Your task to perform on an android device: Show me productivity apps on the Play Store Image 0: 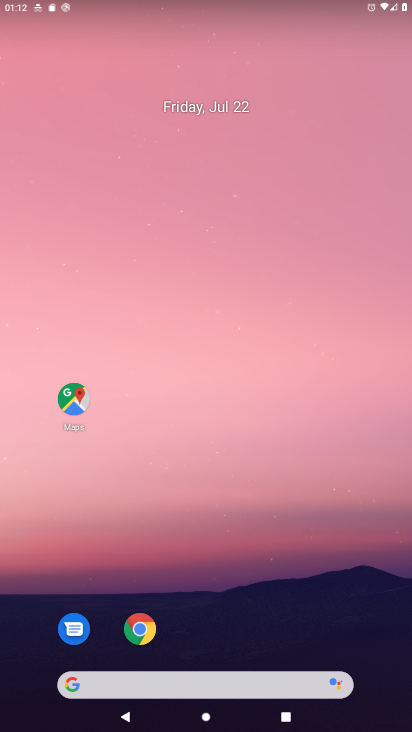
Step 0: drag from (203, 616) to (203, 58)
Your task to perform on an android device: Show me productivity apps on the Play Store Image 1: 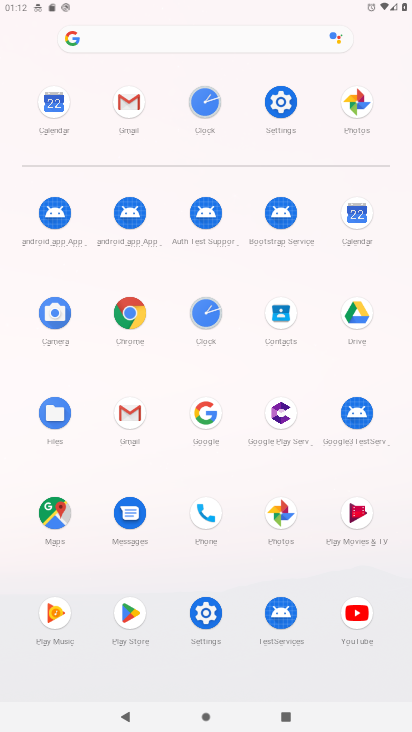
Step 1: click (124, 611)
Your task to perform on an android device: Show me productivity apps on the Play Store Image 2: 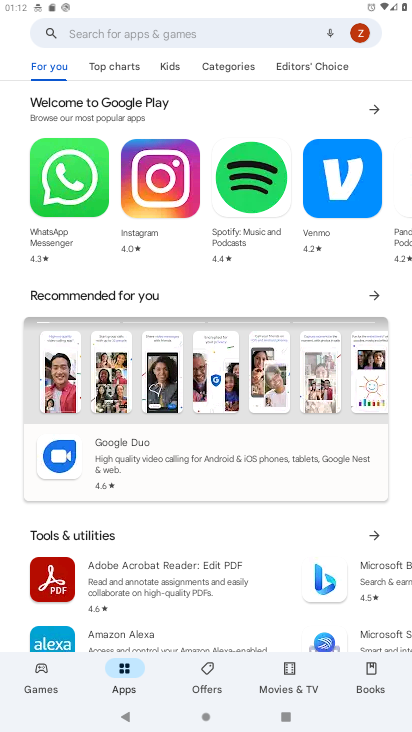
Step 2: click (128, 678)
Your task to perform on an android device: Show me productivity apps on the Play Store Image 3: 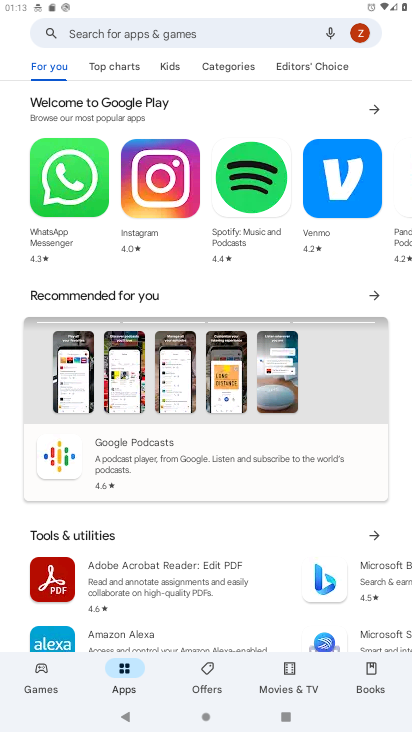
Step 3: task complete